Your task to perform on an android device: When is my next meeting? Image 0: 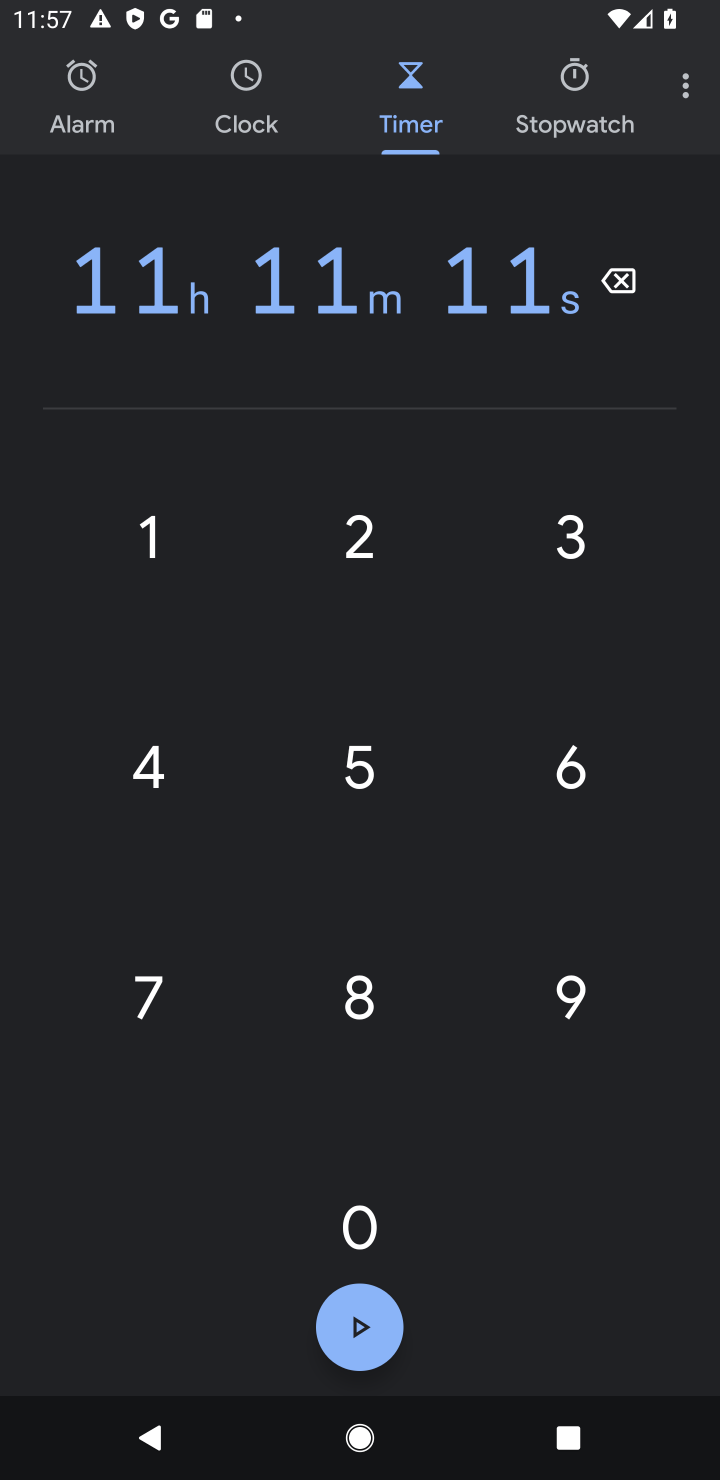
Step 0: press home button
Your task to perform on an android device: When is my next meeting? Image 1: 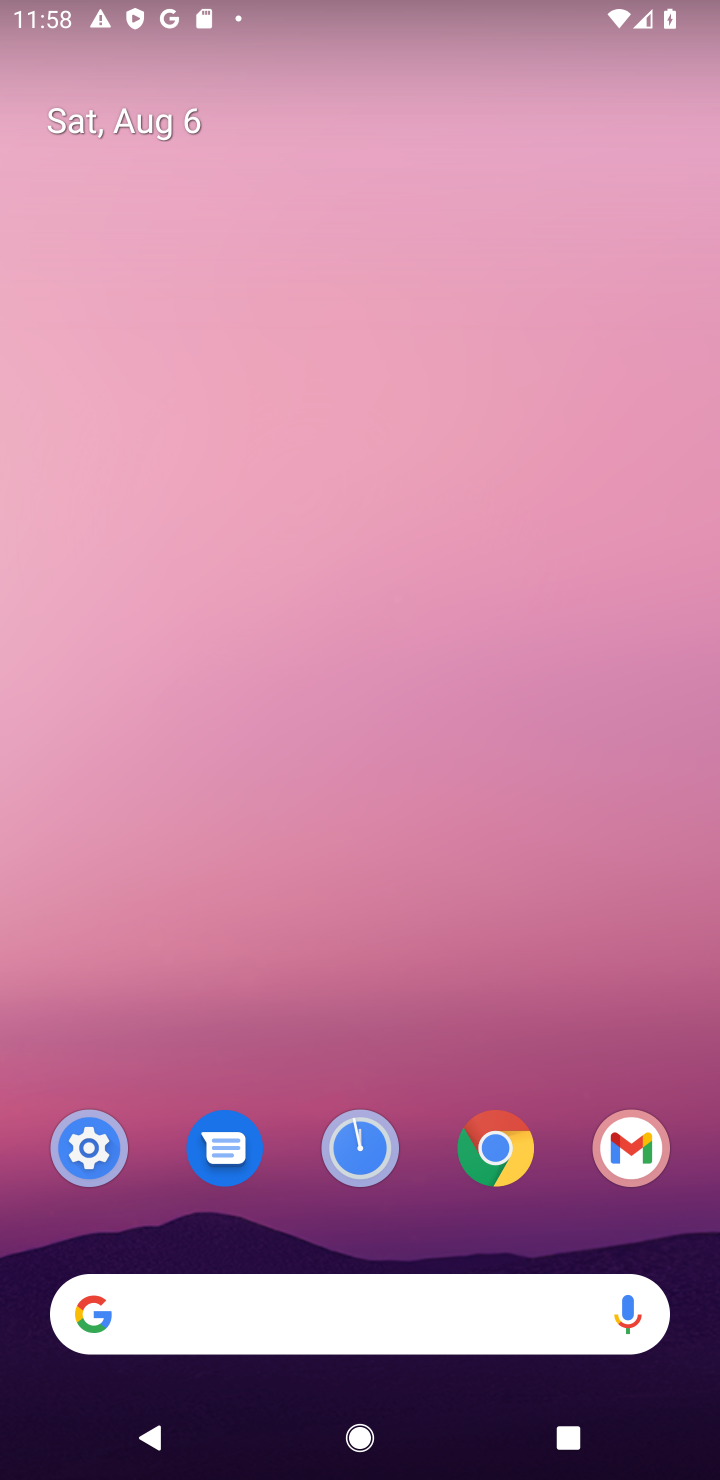
Step 1: drag from (343, 972) to (327, 63)
Your task to perform on an android device: When is my next meeting? Image 2: 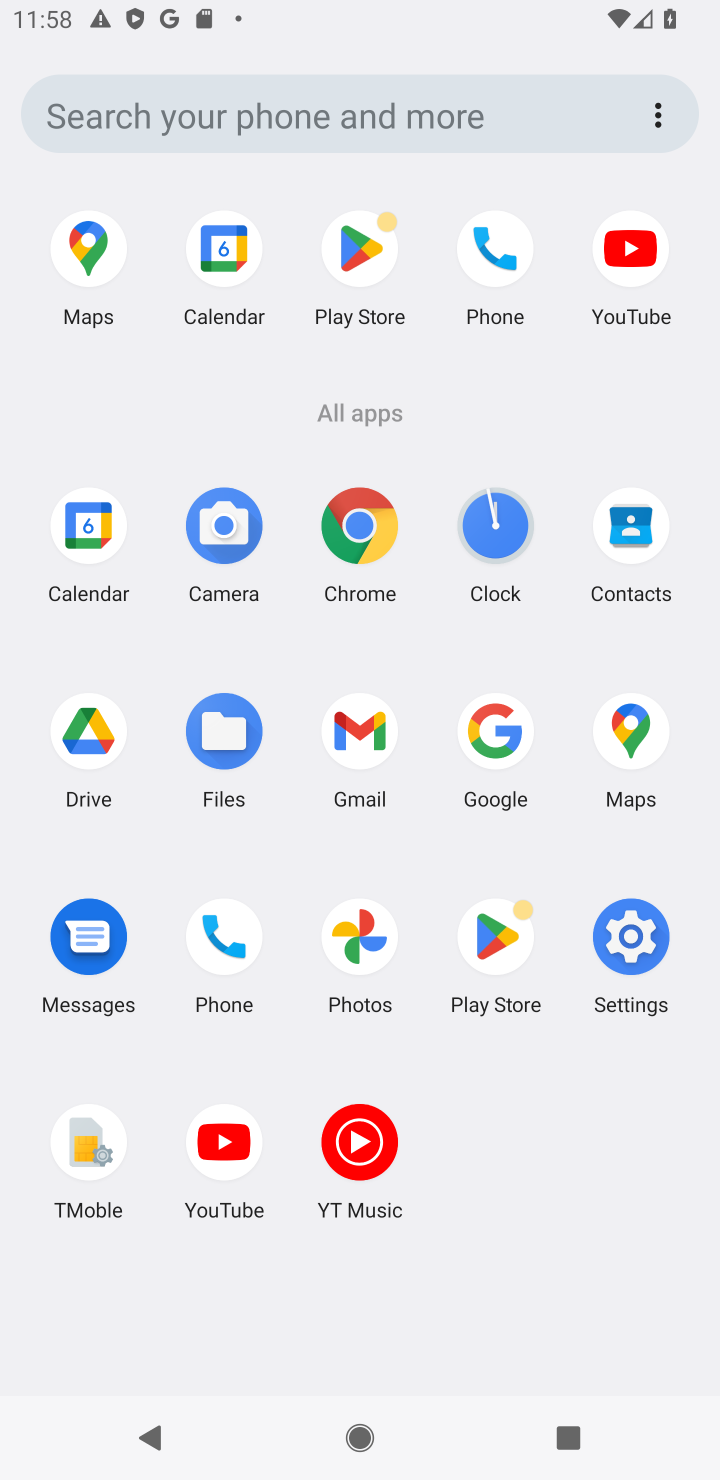
Step 2: click (223, 246)
Your task to perform on an android device: When is my next meeting? Image 3: 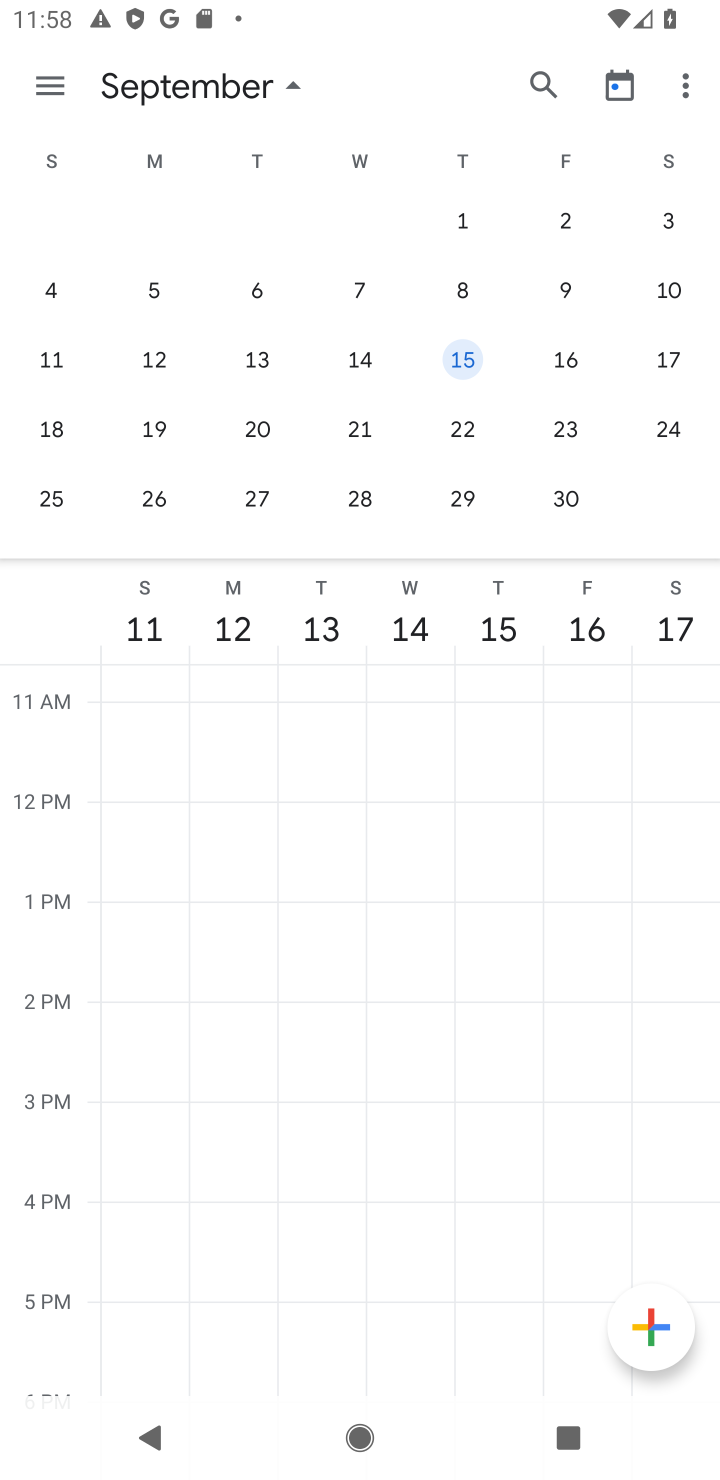
Step 3: drag from (56, 263) to (655, 394)
Your task to perform on an android device: When is my next meeting? Image 4: 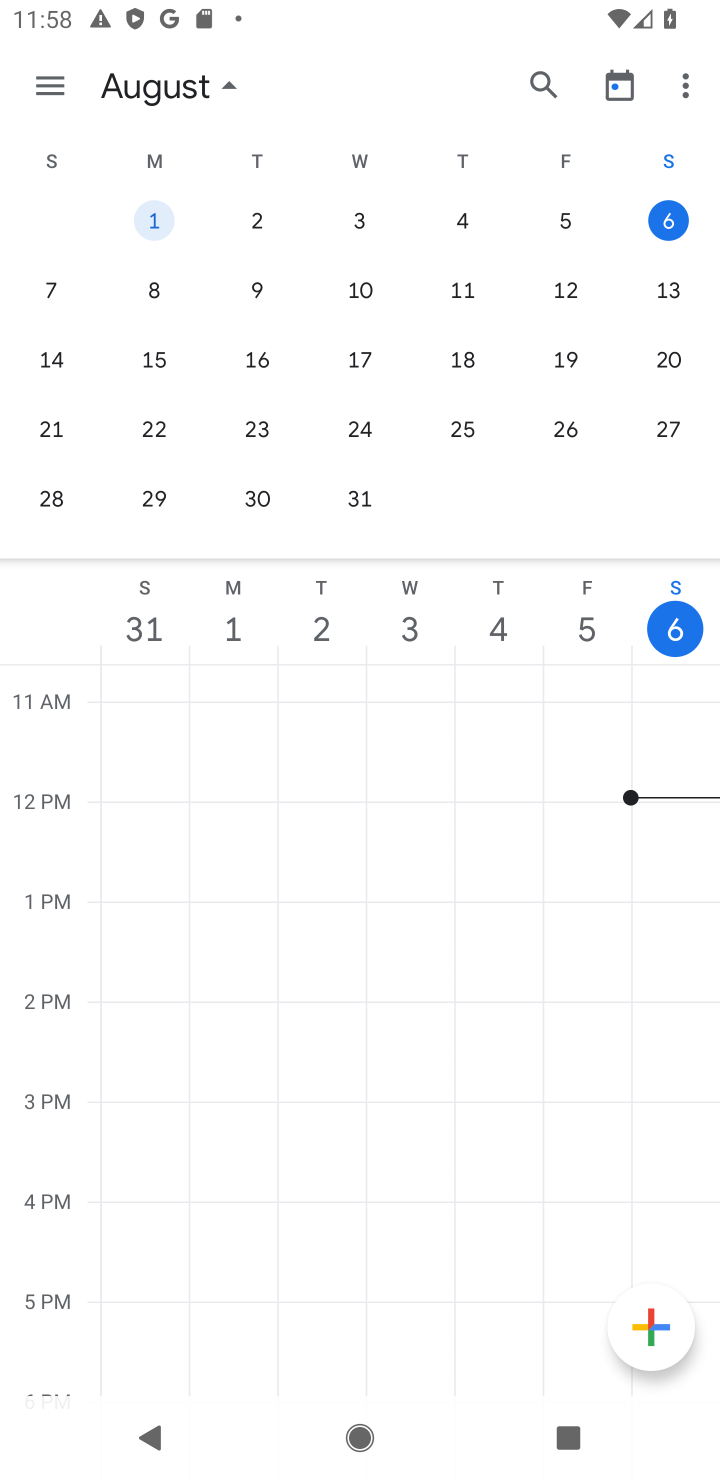
Step 4: click (670, 214)
Your task to perform on an android device: When is my next meeting? Image 5: 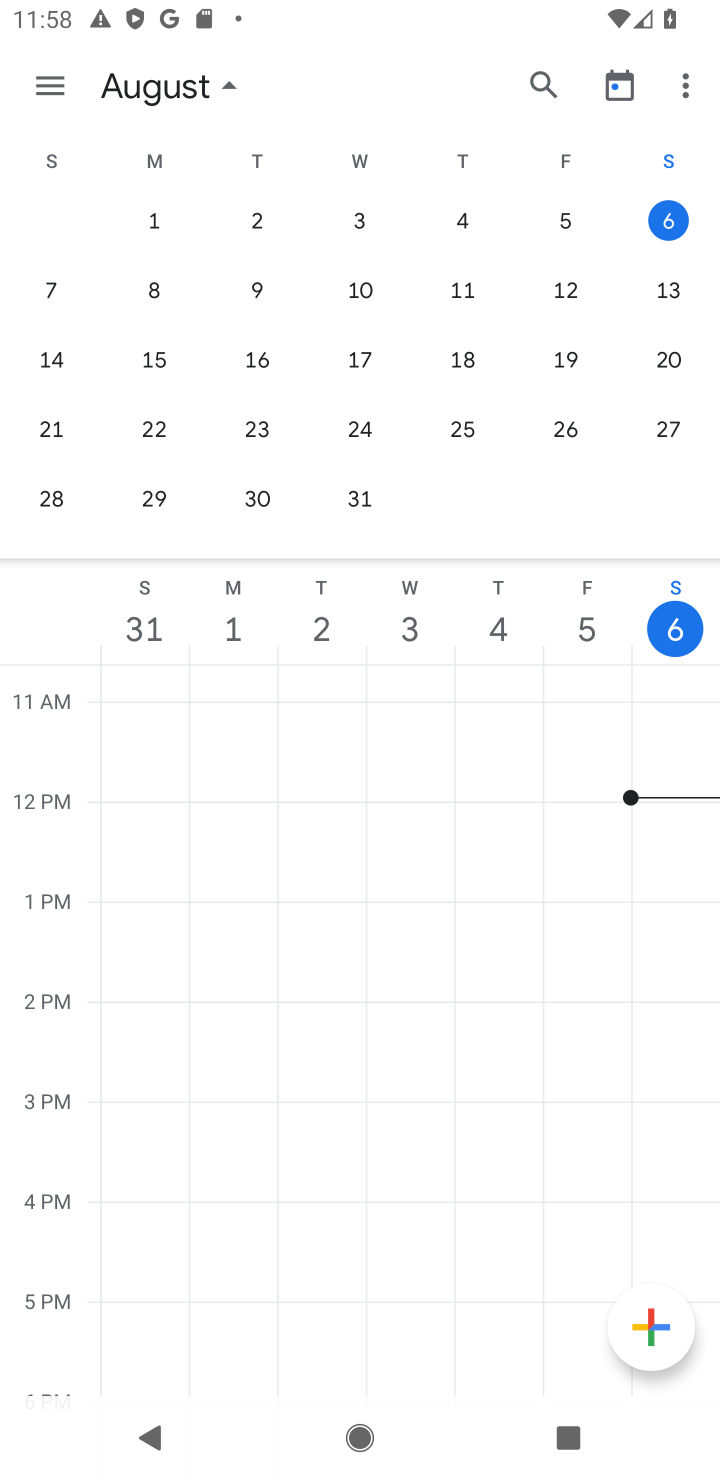
Step 5: click (658, 637)
Your task to perform on an android device: When is my next meeting? Image 6: 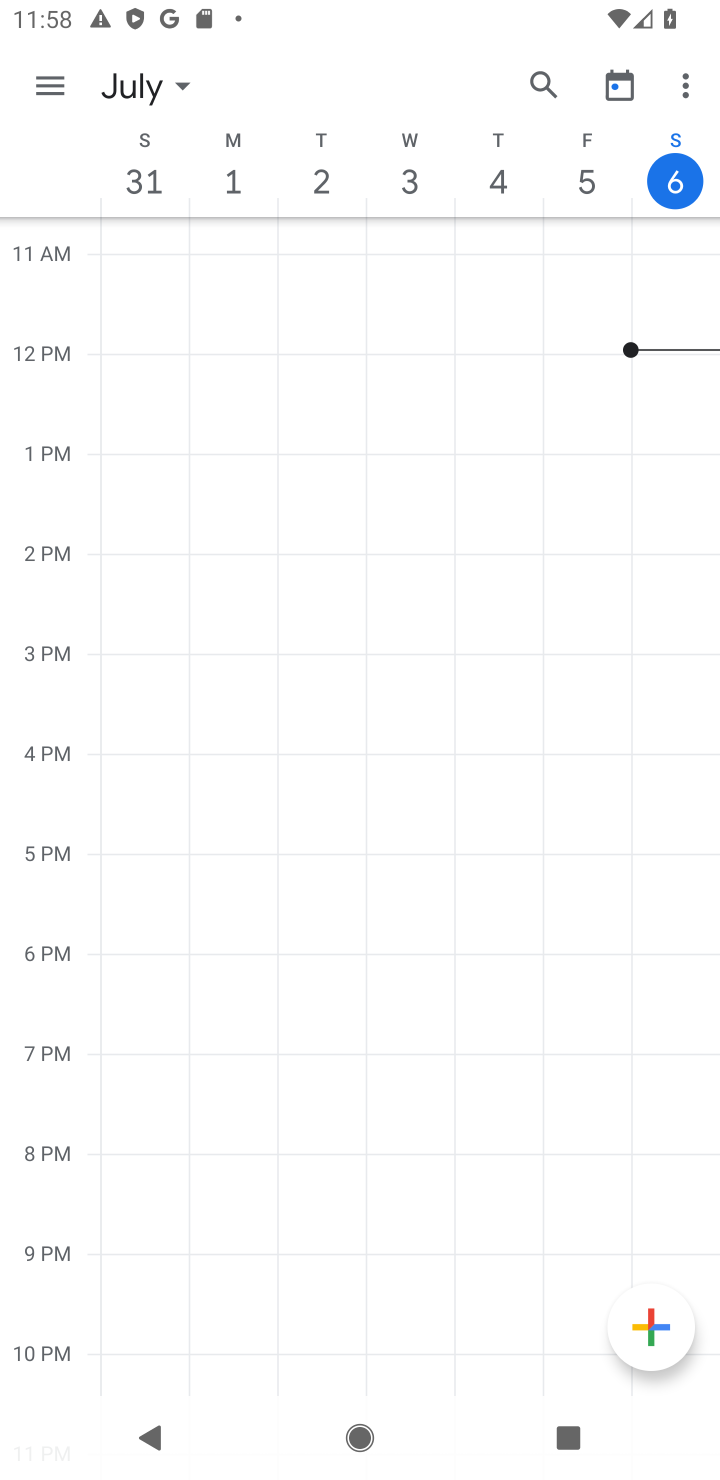
Step 6: task complete